Your task to perform on an android device: Go to sound settings Image 0: 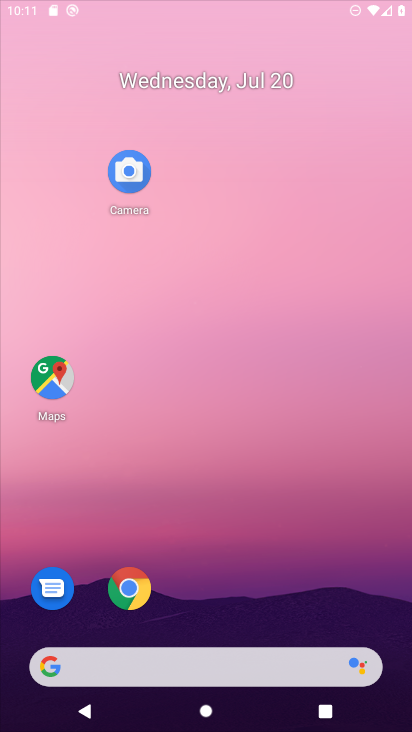
Step 0: press home button
Your task to perform on an android device: Go to sound settings Image 1: 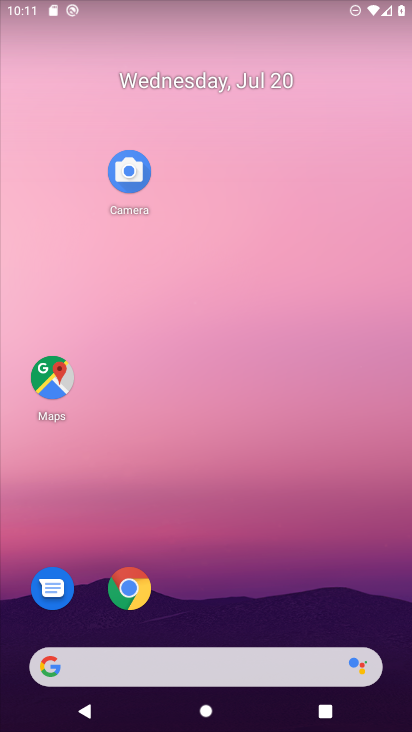
Step 1: drag from (253, 625) to (280, 155)
Your task to perform on an android device: Go to sound settings Image 2: 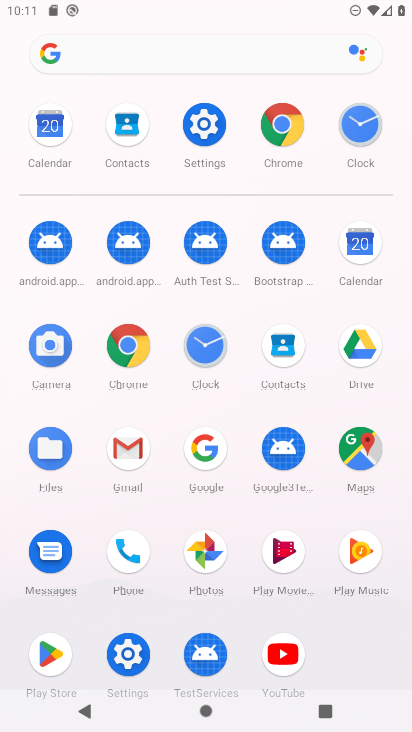
Step 2: click (198, 136)
Your task to perform on an android device: Go to sound settings Image 3: 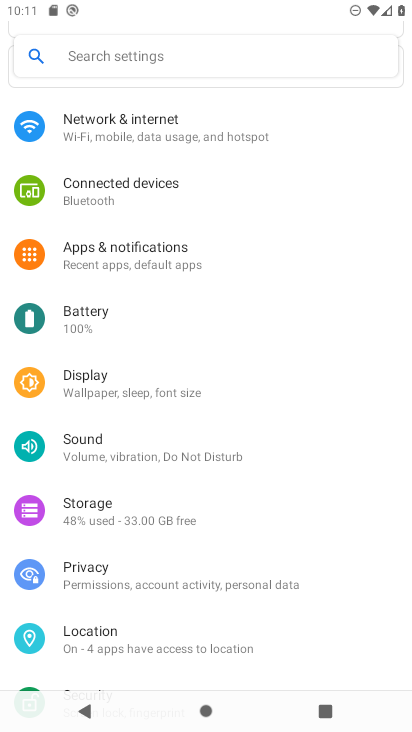
Step 3: click (109, 462)
Your task to perform on an android device: Go to sound settings Image 4: 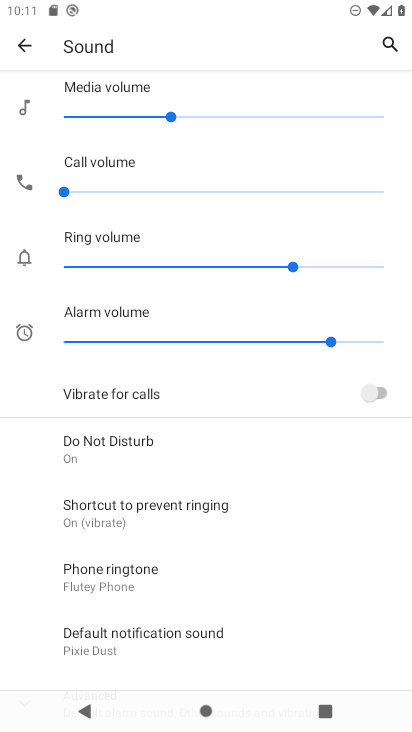
Step 4: task complete